Your task to perform on an android device: View the shopping cart on newegg.com. Add "logitech g933" to the cart on newegg.com, then select checkout. Image 0: 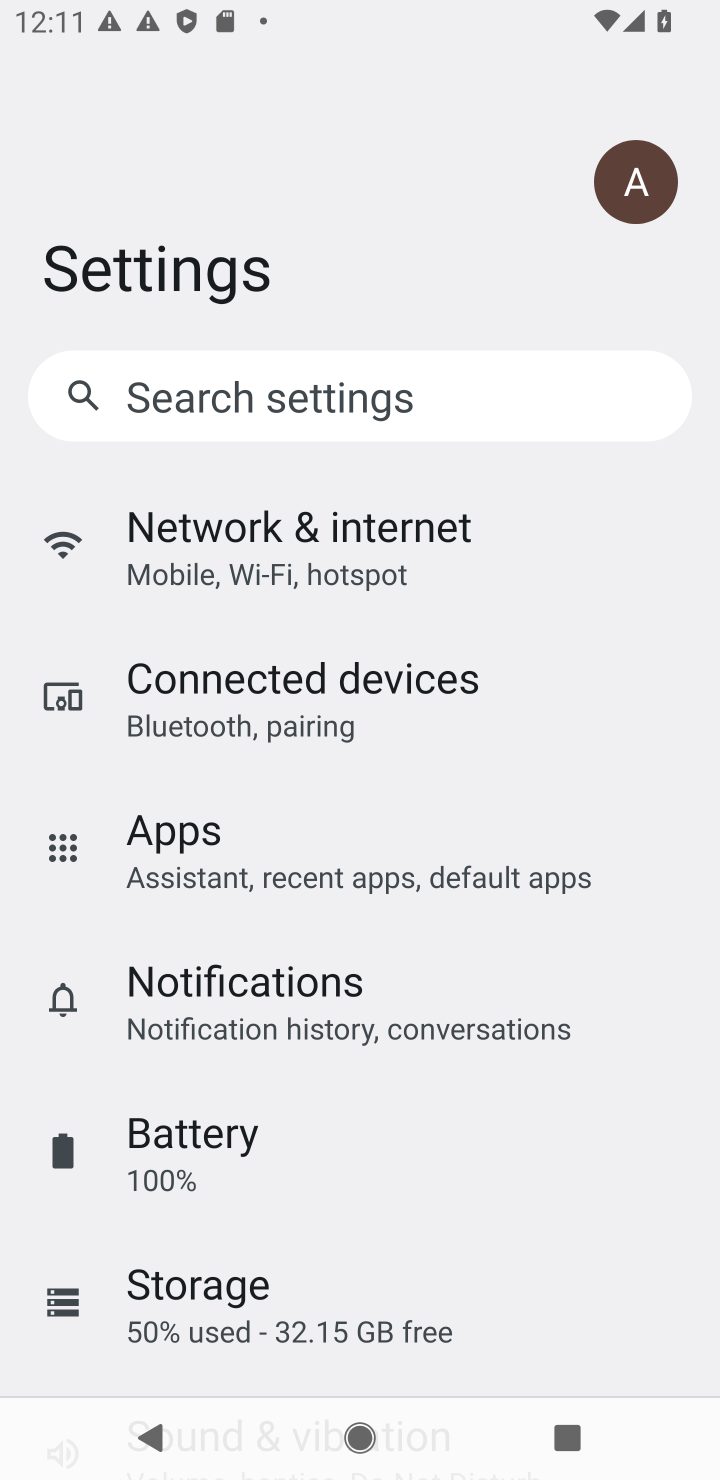
Step 0: press home button
Your task to perform on an android device: View the shopping cart on newegg.com. Add "logitech g933" to the cart on newegg.com, then select checkout. Image 1: 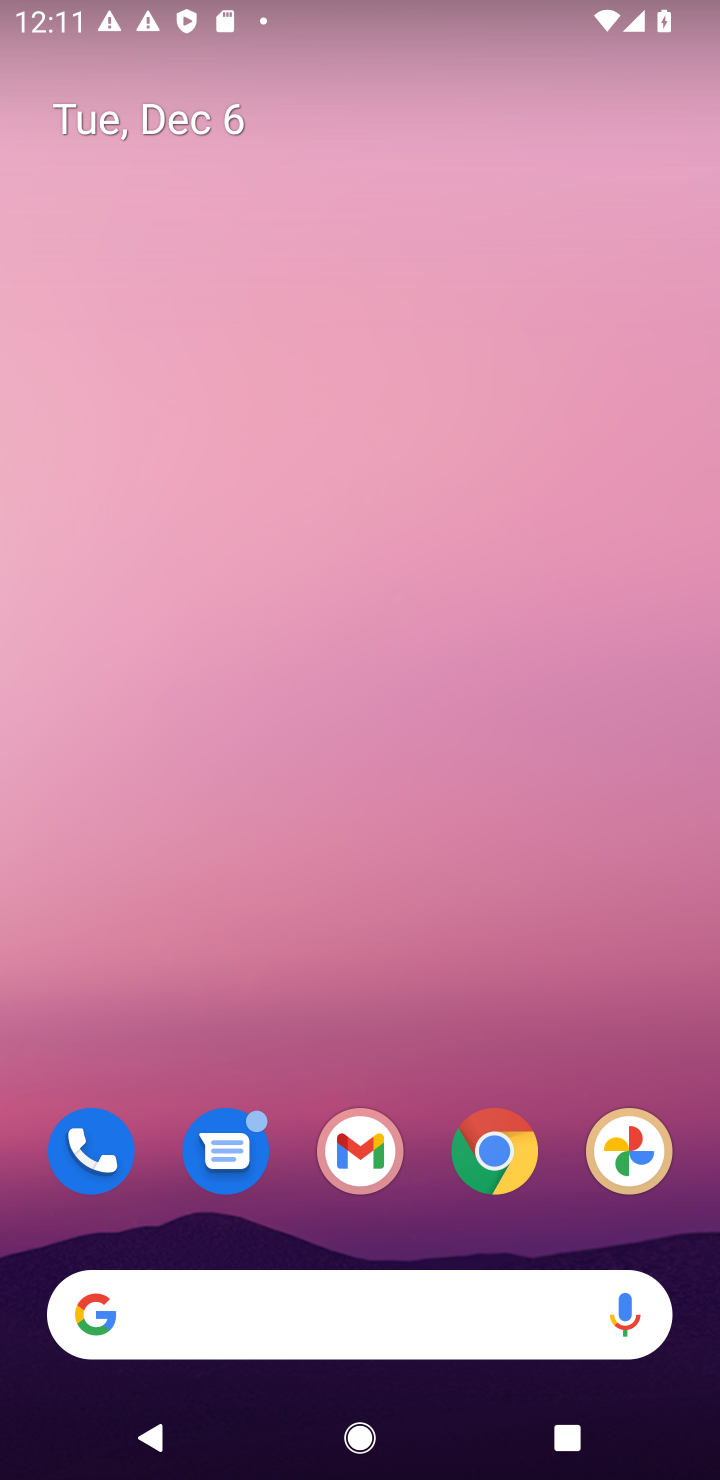
Step 1: click (491, 1147)
Your task to perform on an android device: View the shopping cart on newegg.com. Add "logitech g933" to the cart on newegg.com, then select checkout. Image 2: 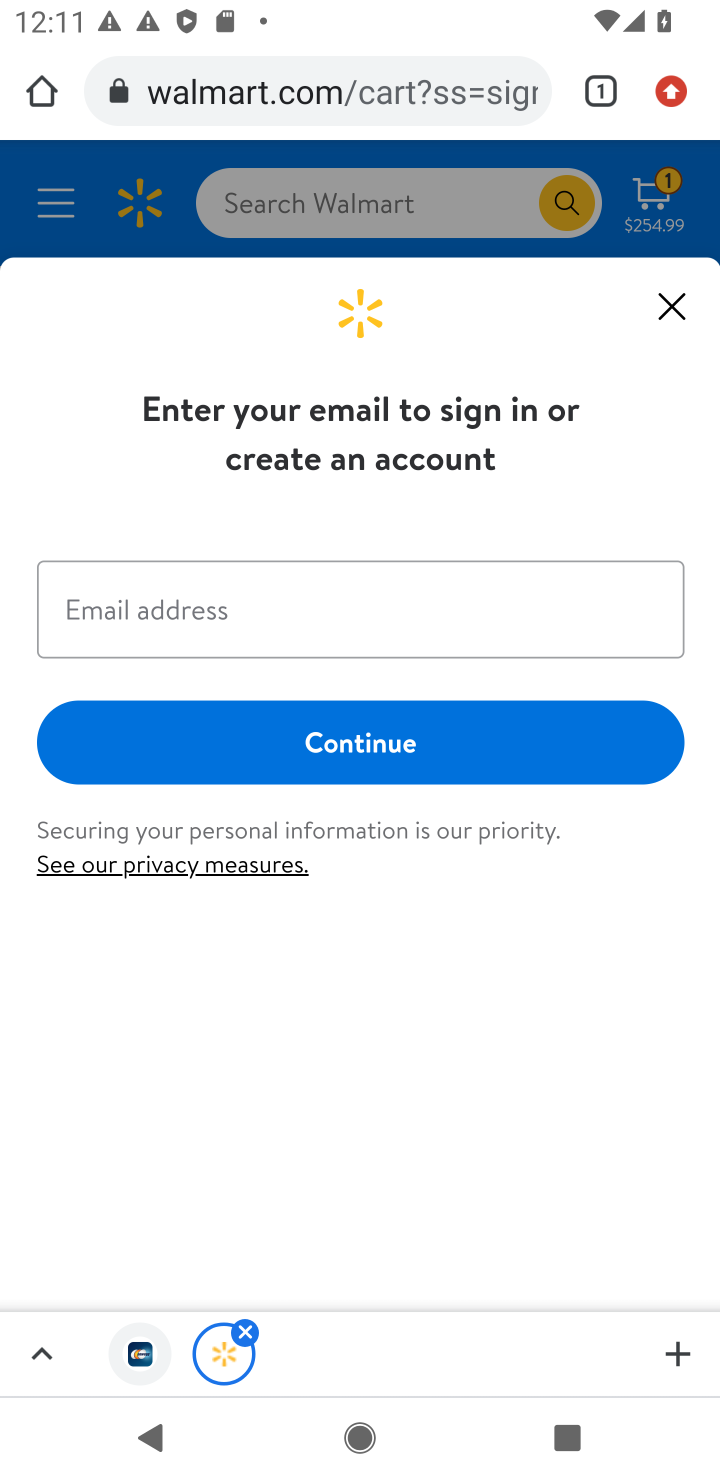
Step 2: click (259, 98)
Your task to perform on an android device: View the shopping cart on newegg.com. Add "logitech g933" to the cart on newegg.com, then select checkout. Image 3: 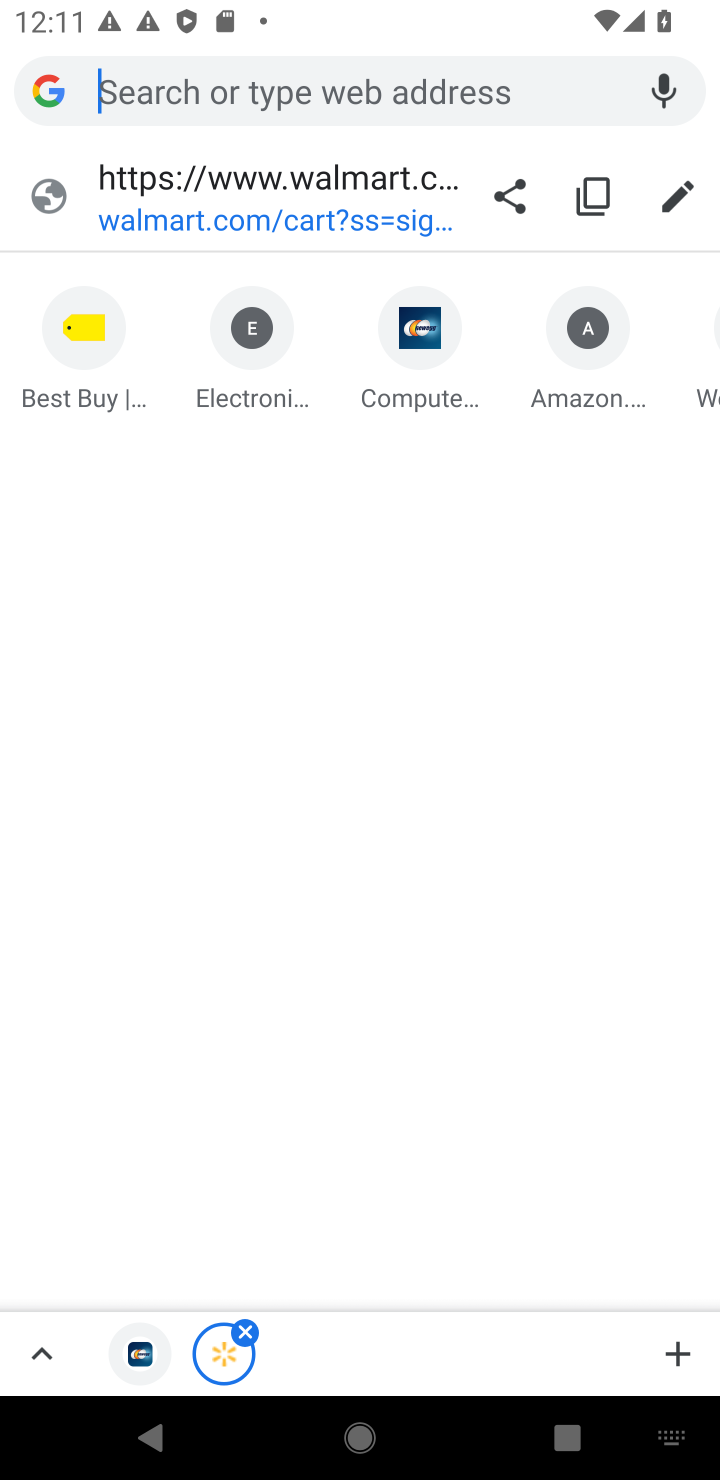
Step 3: click (384, 391)
Your task to perform on an android device: View the shopping cart on newegg.com. Add "logitech g933" to the cart on newegg.com, then select checkout. Image 4: 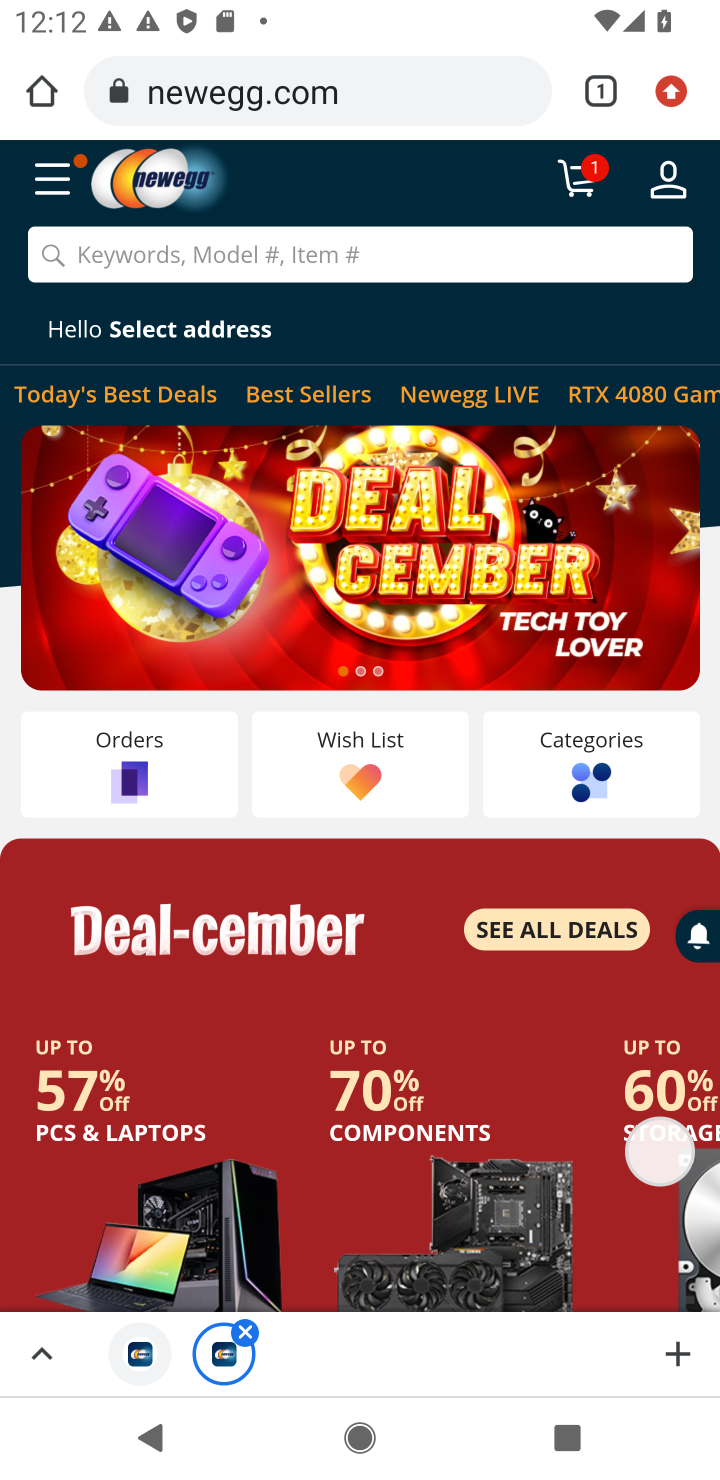
Step 4: click (574, 189)
Your task to perform on an android device: View the shopping cart on newegg.com. Add "logitech g933" to the cart on newegg.com, then select checkout. Image 5: 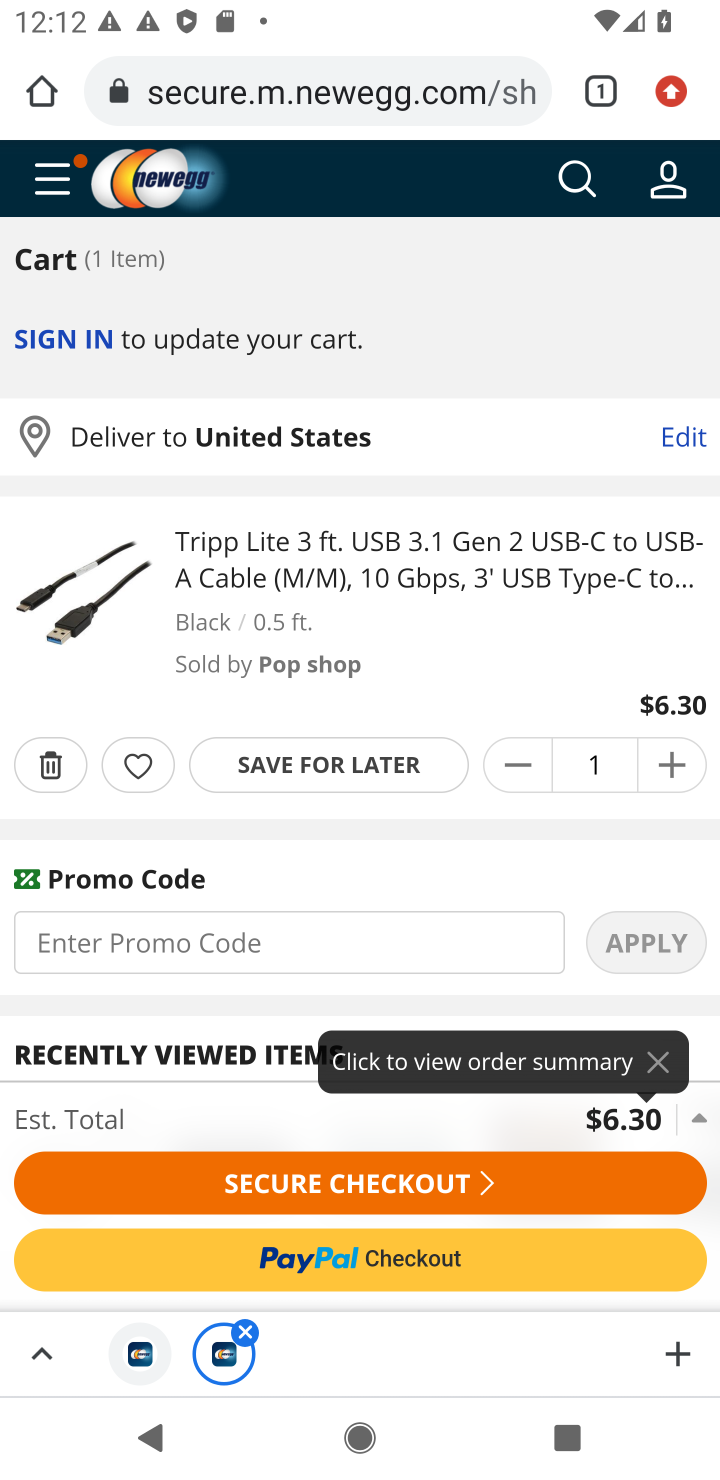
Step 5: click (568, 194)
Your task to perform on an android device: View the shopping cart on newegg.com. Add "logitech g933" to the cart on newegg.com, then select checkout. Image 6: 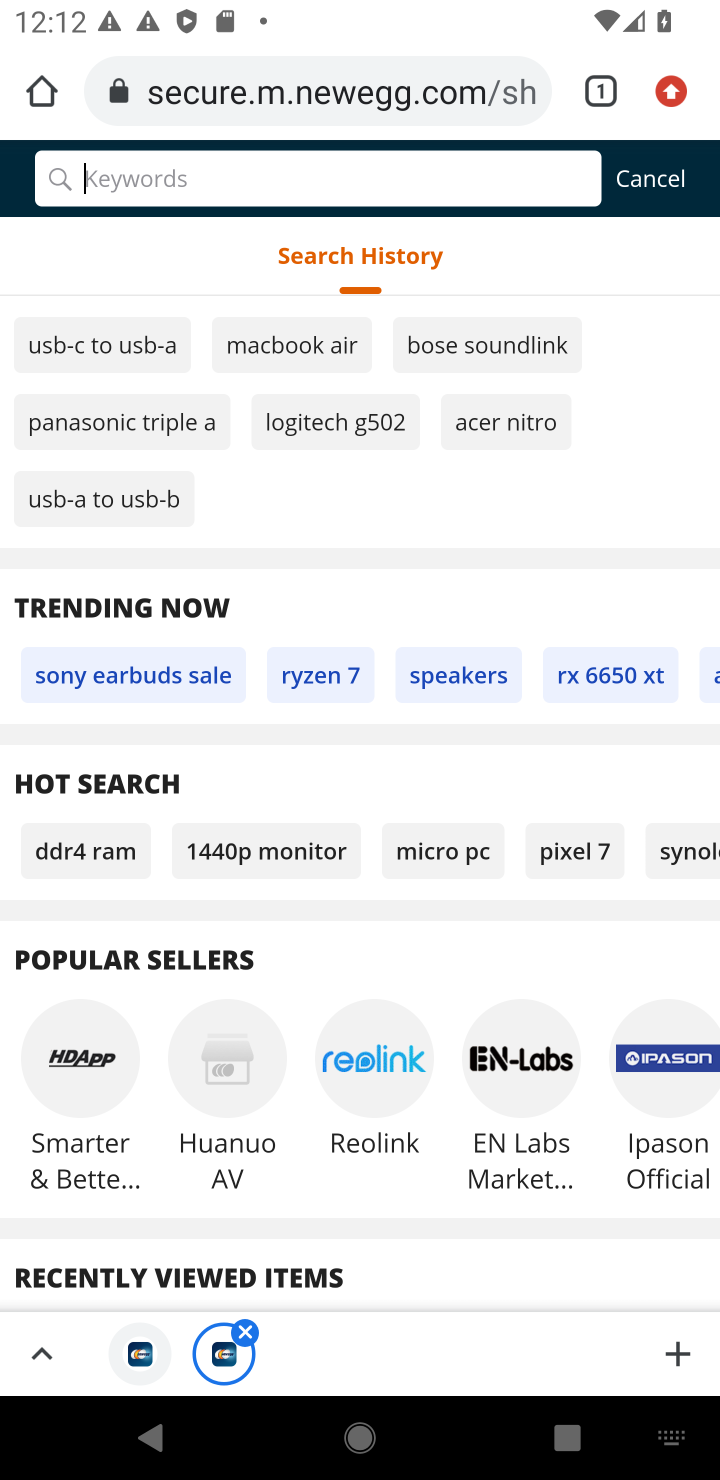
Step 6: type "logitech g933"
Your task to perform on an android device: View the shopping cart on newegg.com. Add "logitech g933" to the cart on newegg.com, then select checkout. Image 7: 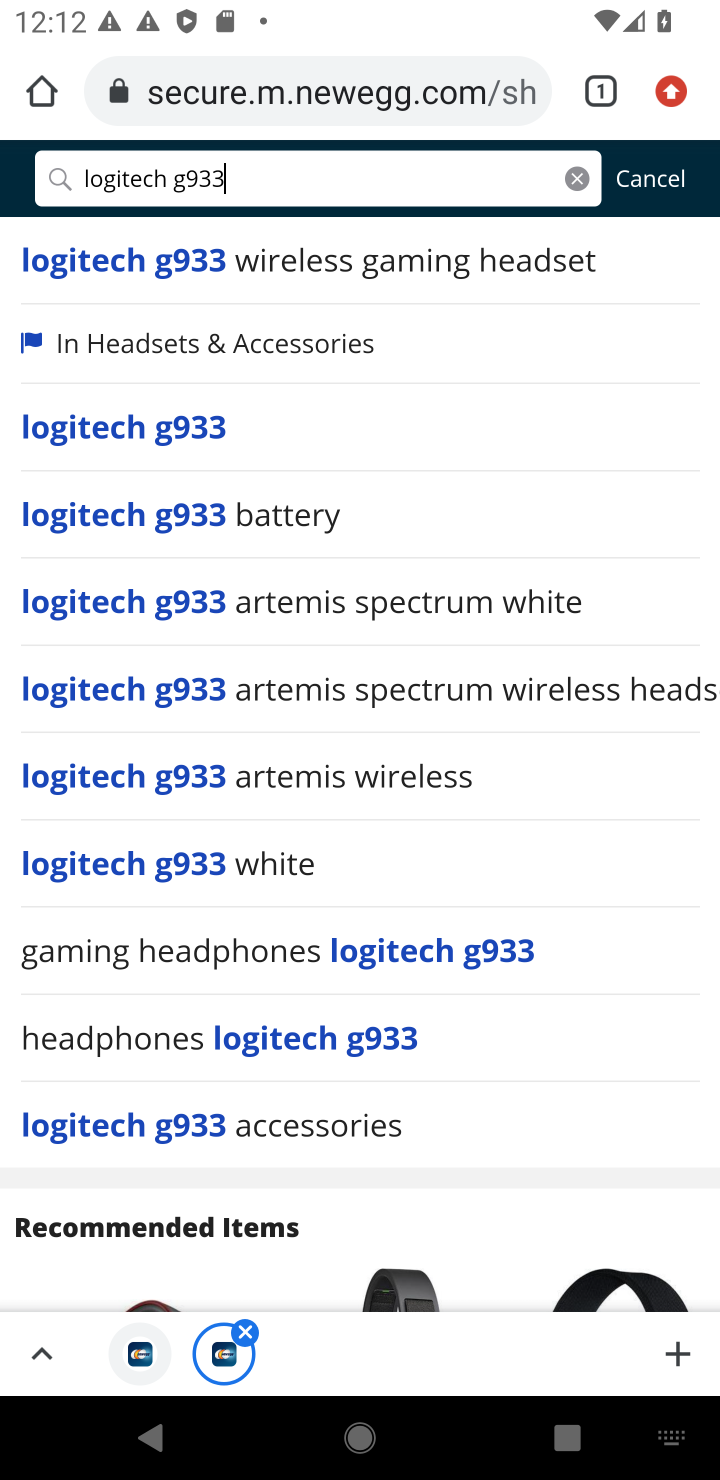
Step 7: click (123, 428)
Your task to perform on an android device: View the shopping cart on newegg.com. Add "logitech g933" to the cart on newegg.com, then select checkout. Image 8: 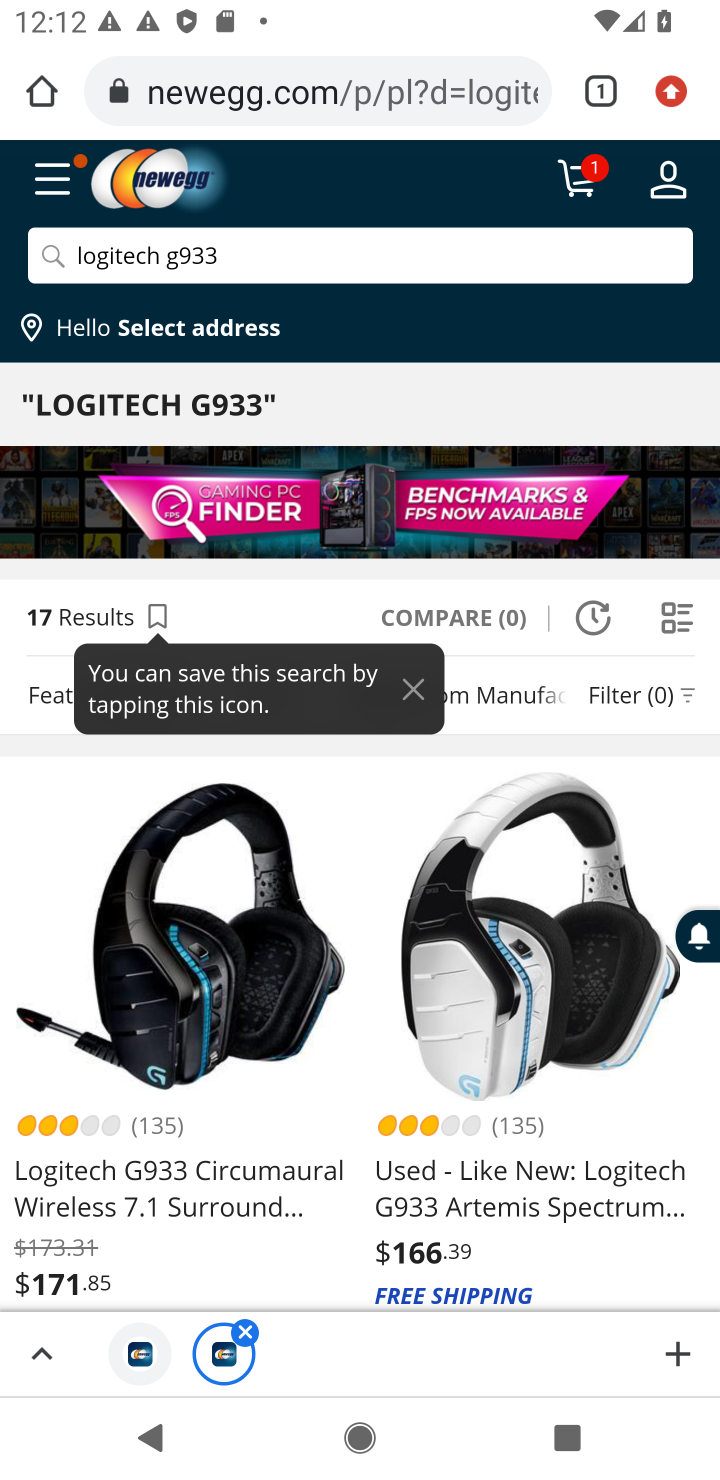
Step 8: drag from (370, 713) to (370, 528)
Your task to perform on an android device: View the shopping cart on newegg.com. Add "logitech g933" to the cart on newegg.com, then select checkout. Image 9: 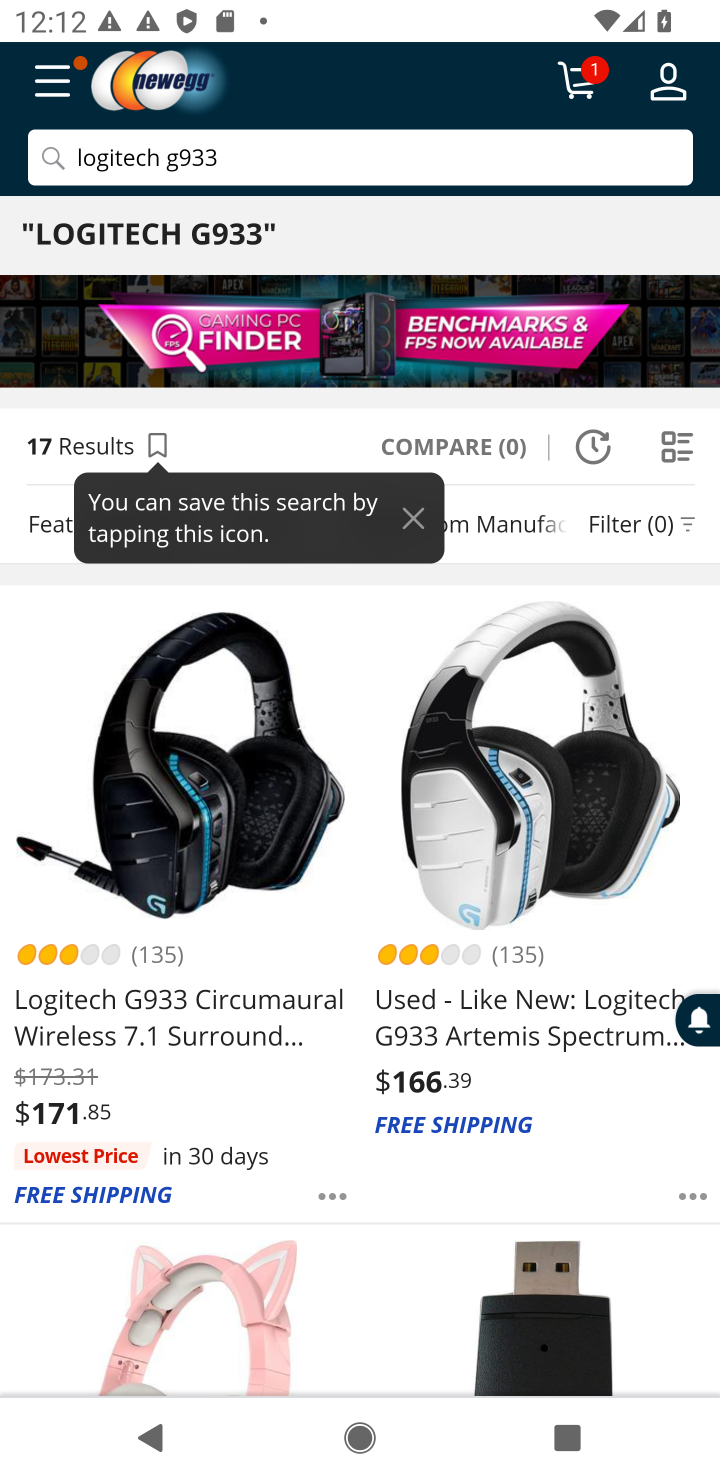
Step 9: click (145, 1008)
Your task to perform on an android device: View the shopping cart on newegg.com. Add "logitech g933" to the cart on newegg.com, then select checkout. Image 10: 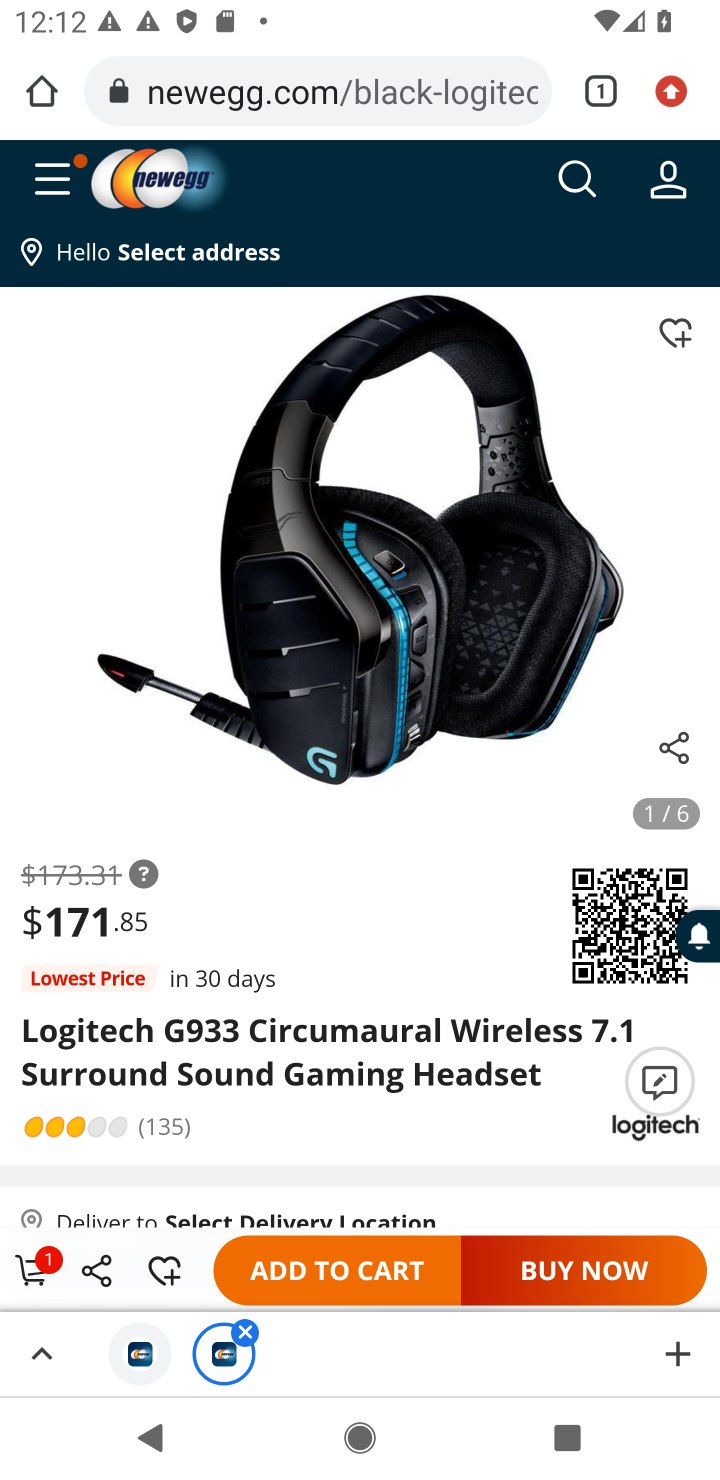
Step 10: click (329, 1278)
Your task to perform on an android device: View the shopping cart on newegg.com. Add "logitech g933" to the cart on newegg.com, then select checkout. Image 11: 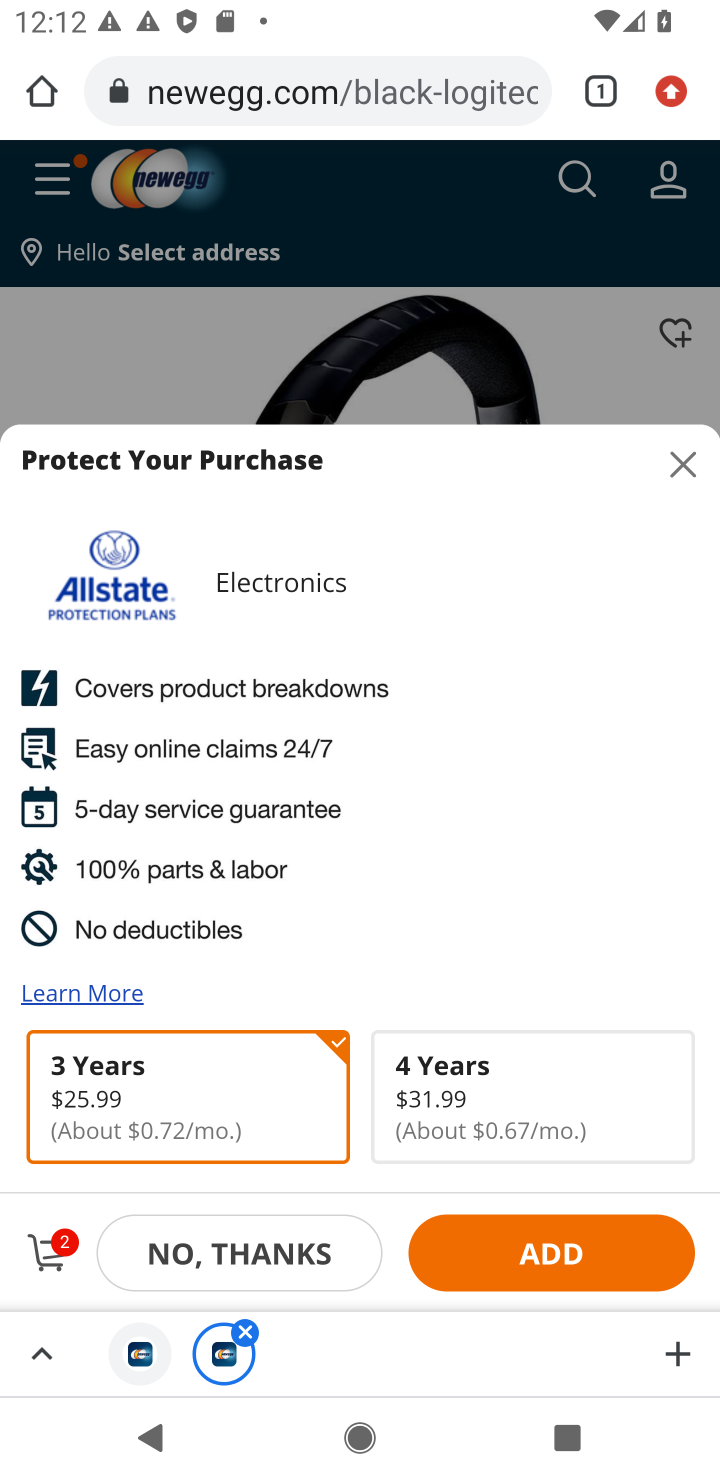
Step 11: click (62, 1257)
Your task to perform on an android device: View the shopping cart on newegg.com. Add "logitech g933" to the cart on newegg.com, then select checkout. Image 12: 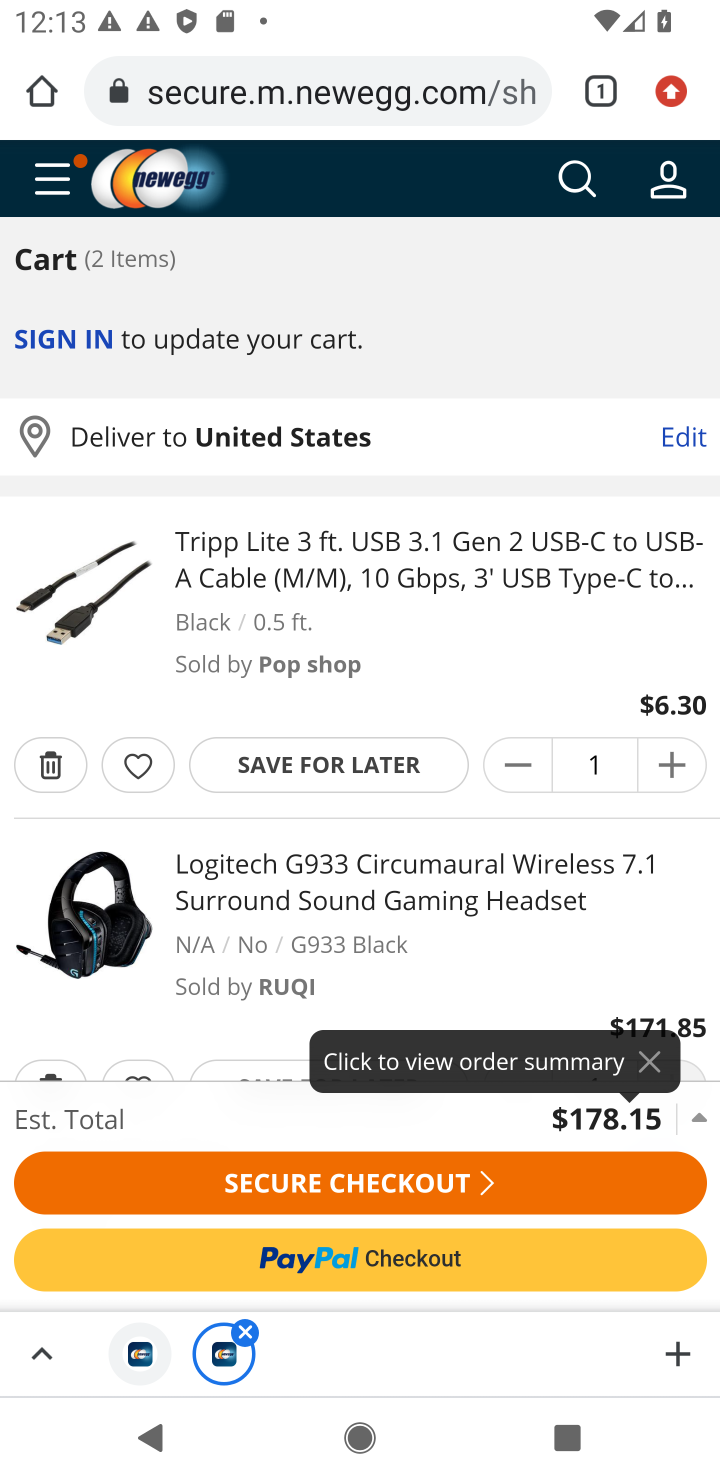
Step 12: click (277, 1178)
Your task to perform on an android device: View the shopping cart on newegg.com. Add "logitech g933" to the cart on newegg.com, then select checkout. Image 13: 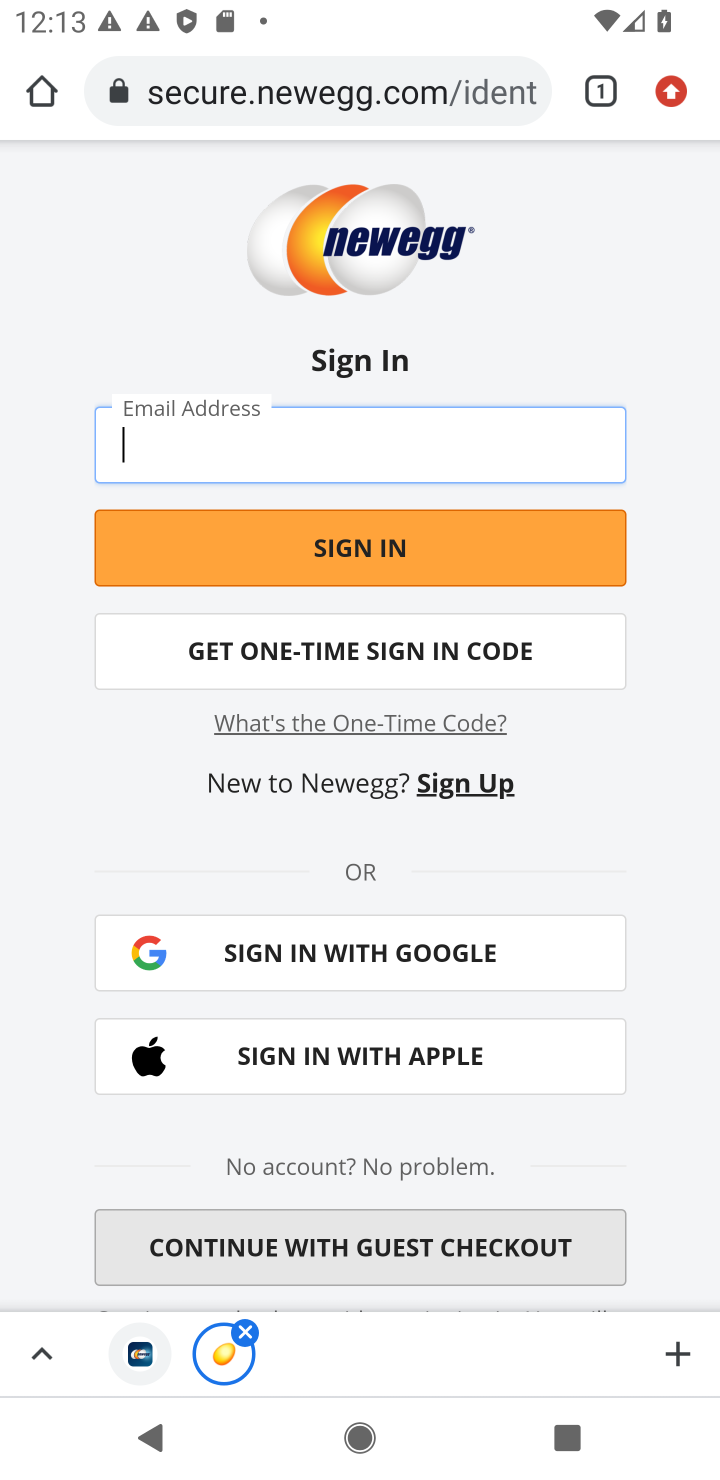
Step 13: task complete